Your task to perform on an android device: Show me popular videos on Youtube Image 0: 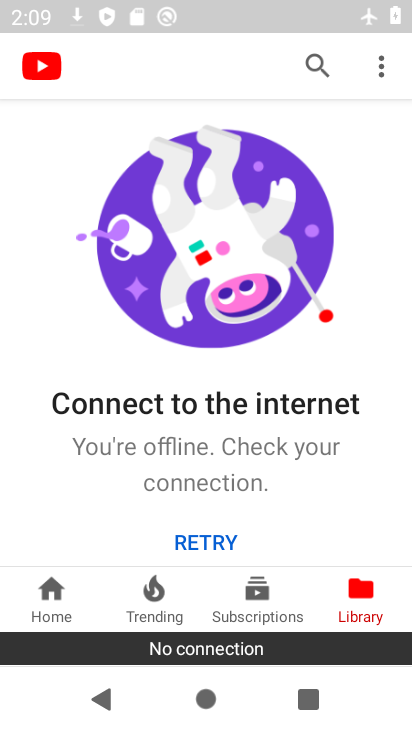
Step 0: press home button
Your task to perform on an android device: Show me popular videos on Youtube Image 1: 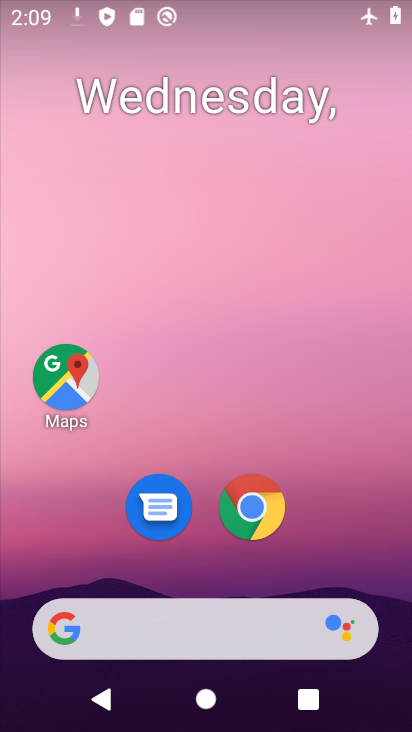
Step 1: drag from (380, 558) to (355, 157)
Your task to perform on an android device: Show me popular videos on Youtube Image 2: 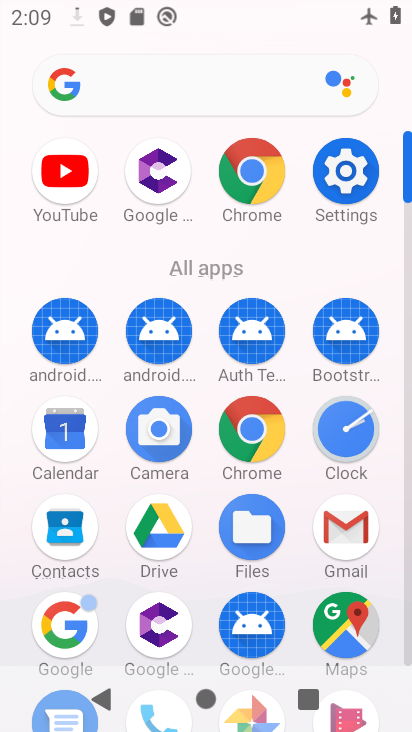
Step 2: click (61, 191)
Your task to perform on an android device: Show me popular videos on Youtube Image 3: 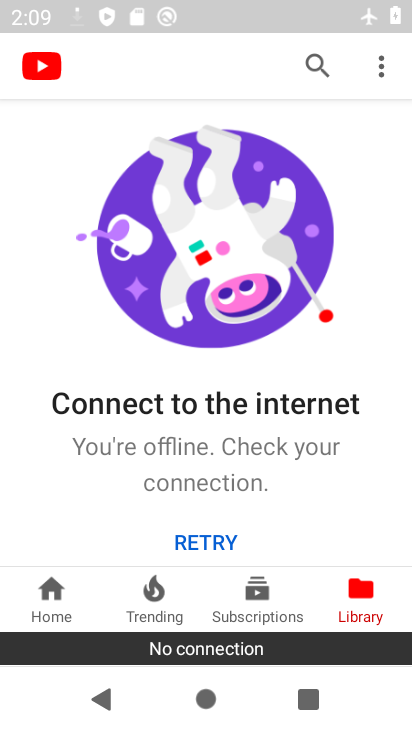
Step 3: click (164, 592)
Your task to perform on an android device: Show me popular videos on Youtube Image 4: 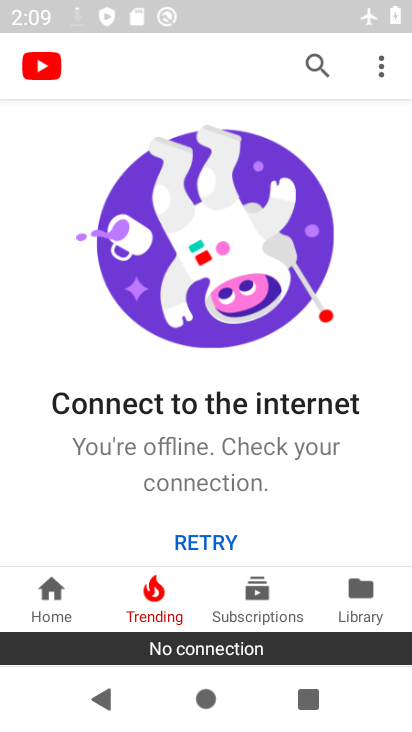
Step 4: task complete